Your task to perform on an android device: When is my next meeting? Image 0: 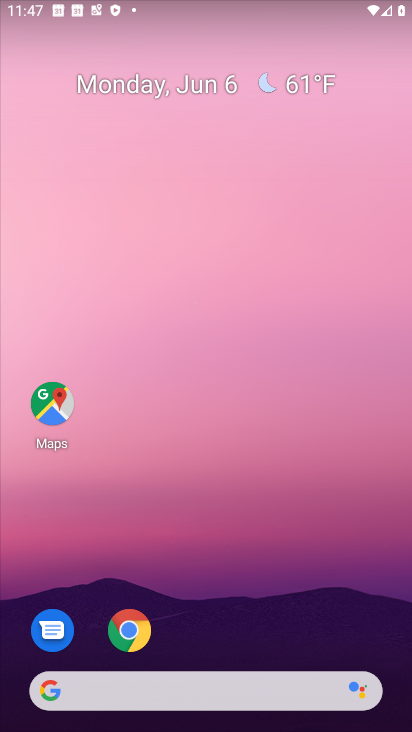
Step 0: drag from (303, 537) to (283, 217)
Your task to perform on an android device: When is my next meeting? Image 1: 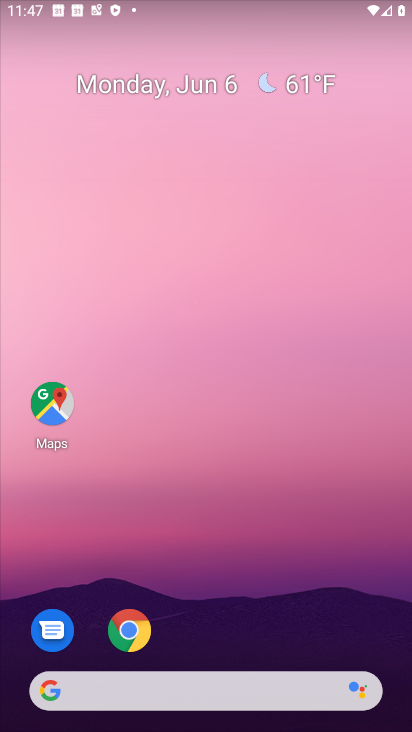
Step 1: drag from (315, 606) to (317, 256)
Your task to perform on an android device: When is my next meeting? Image 2: 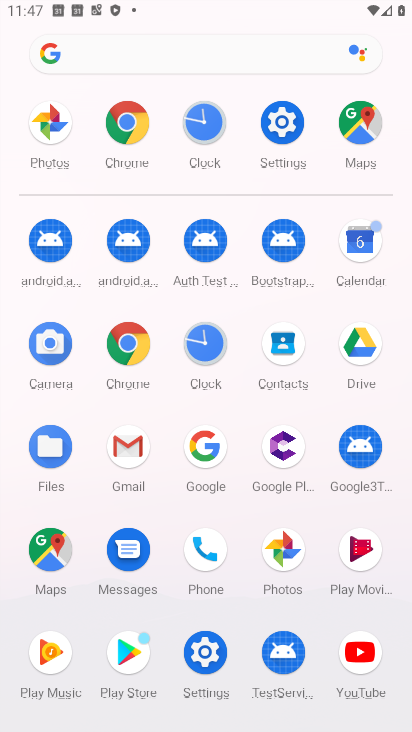
Step 2: click (351, 237)
Your task to perform on an android device: When is my next meeting? Image 3: 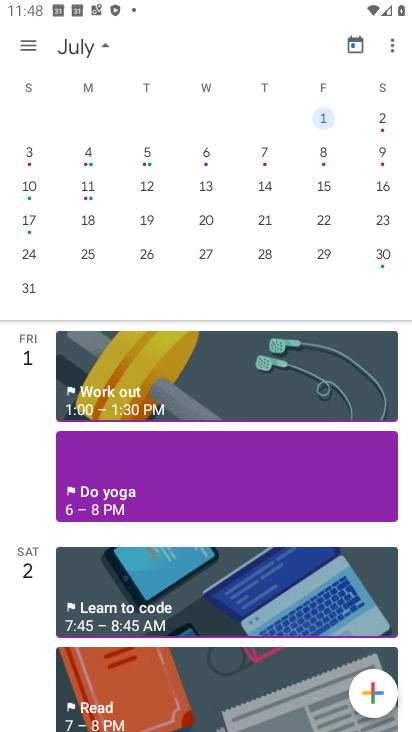
Step 3: drag from (202, 629) to (231, 405)
Your task to perform on an android device: When is my next meeting? Image 4: 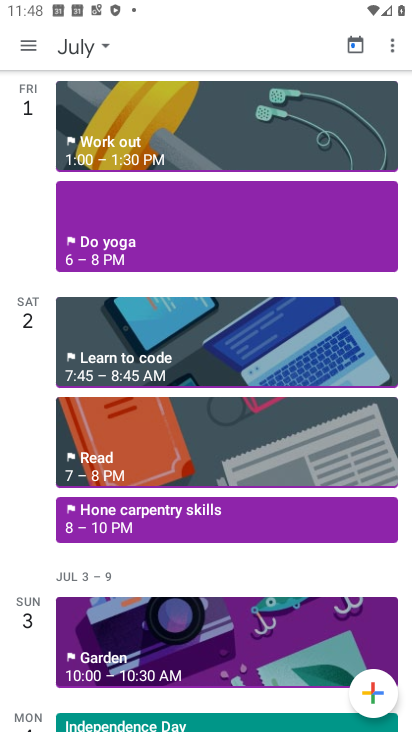
Step 4: drag from (94, 170) to (105, 518)
Your task to perform on an android device: When is my next meeting? Image 5: 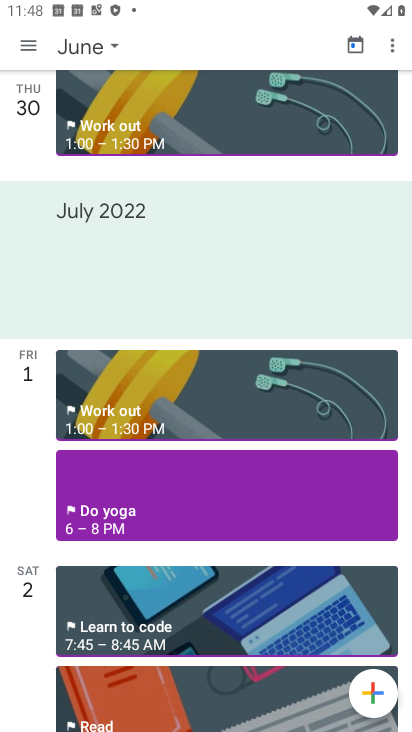
Step 5: click (105, 41)
Your task to perform on an android device: When is my next meeting? Image 6: 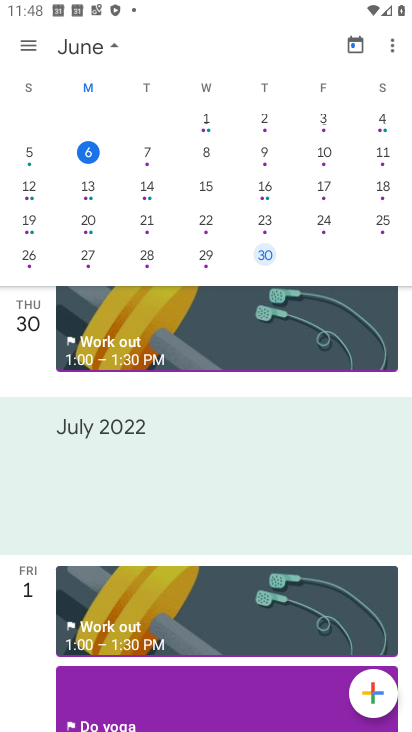
Step 6: click (94, 156)
Your task to perform on an android device: When is my next meeting? Image 7: 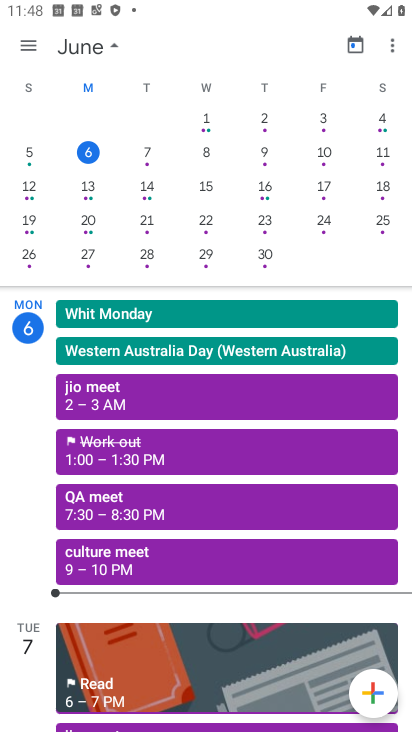
Step 7: drag from (197, 595) to (202, 360)
Your task to perform on an android device: When is my next meeting? Image 8: 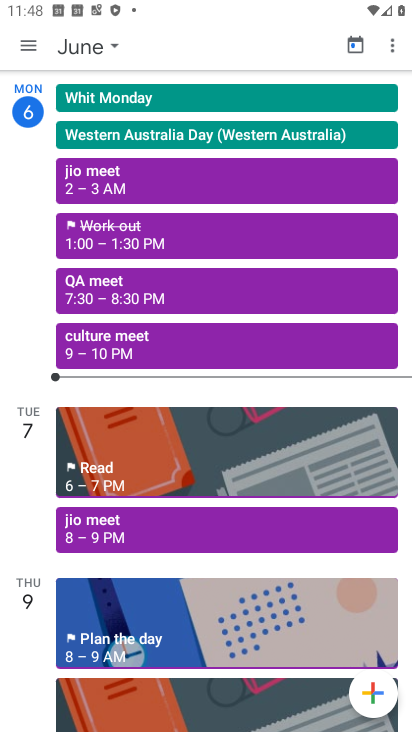
Step 8: drag from (205, 649) to (199, 390)
Your task to perform on an android device: When is my next meeting? Image 9: 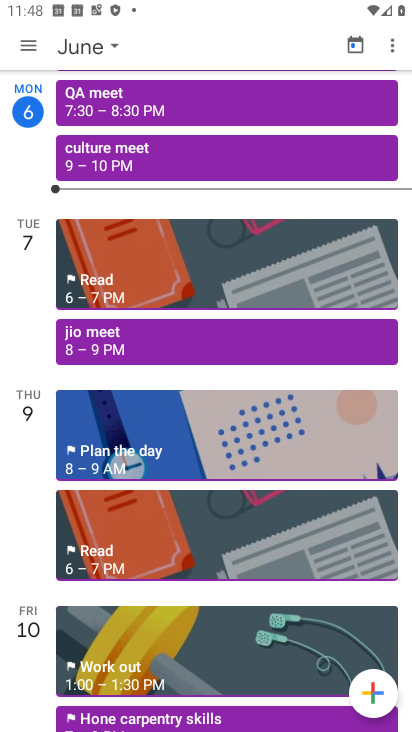
Step 9: click (172, 327)
Your task to perform on an android device: When is my next meeting? Image 10: 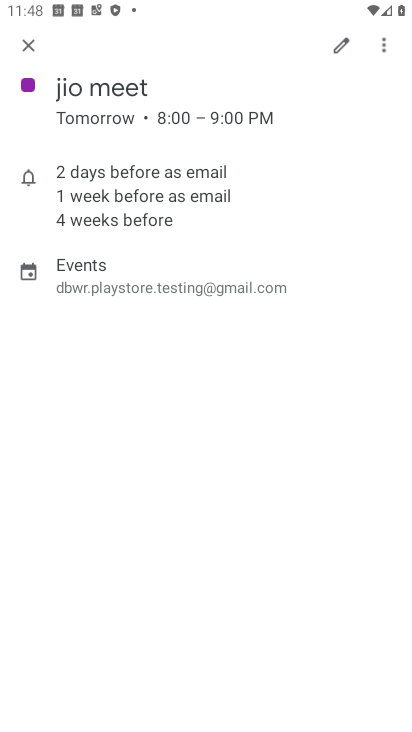
Step 10: task complete